Your task to perform on an android device: empty trash in google photos Image 0: 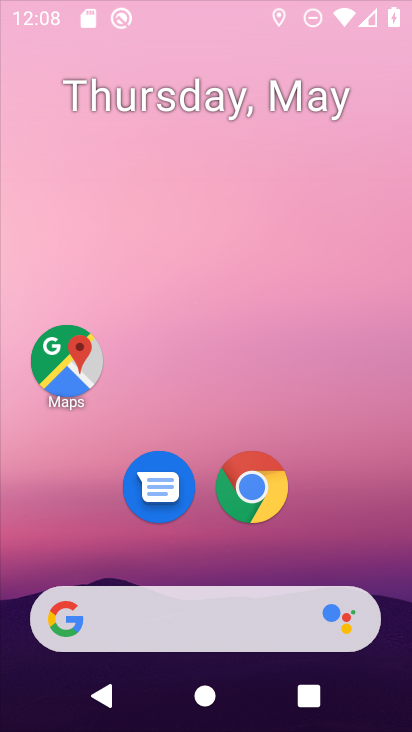
Step 0: click (208, 54)
Your task to perform on an android device: empty trash in google photos Image 1: 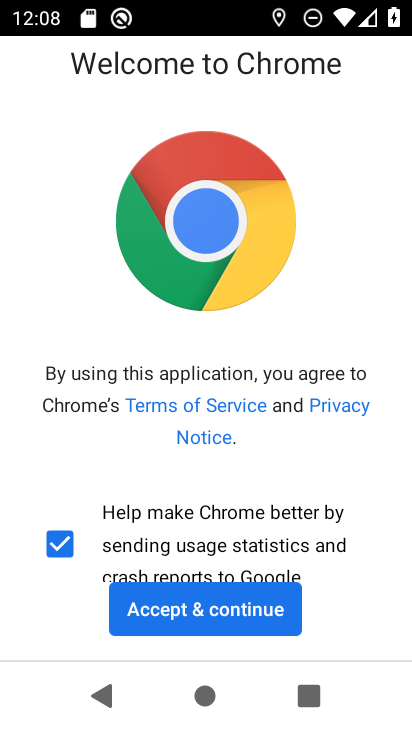
Step 1: press home button
Your task to perform on an android device: empty trash in google photos Image 2: 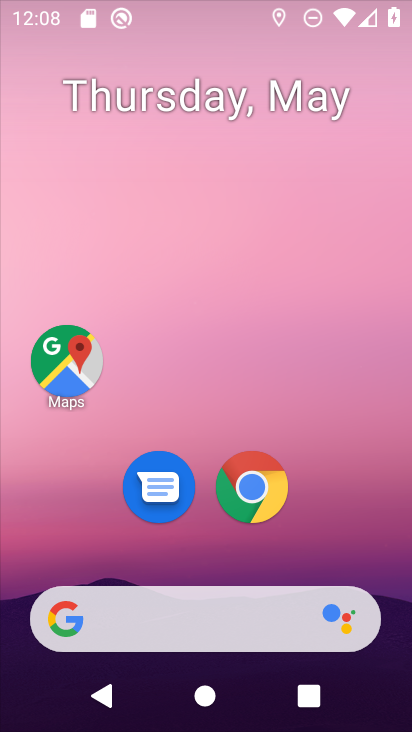
Step 2: drag from (208, 270) to (233, 25)
Your task to perform on an android device: empty trash in google photos Image 3: 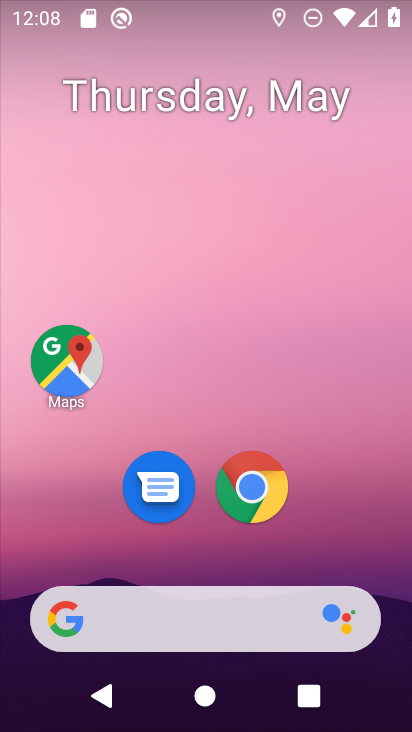
Step 3: drag from (86, 448) to (145, 13)
Your task to perform on an android device: empty trash in google photos Image 4: 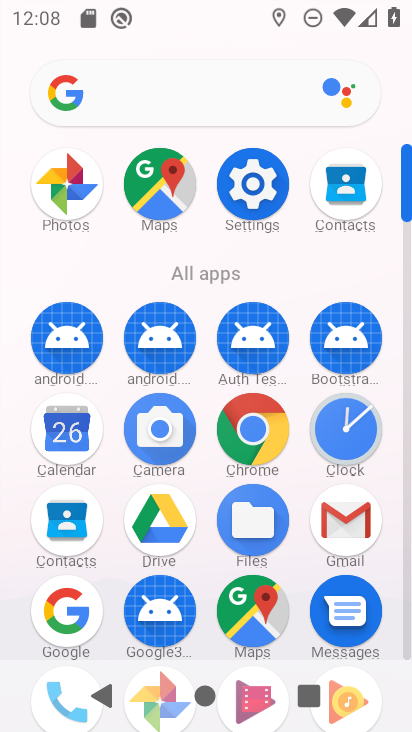
Step 4: click (64, 164)
Your task to perform on an android device: empty trash in google photos Image 5: 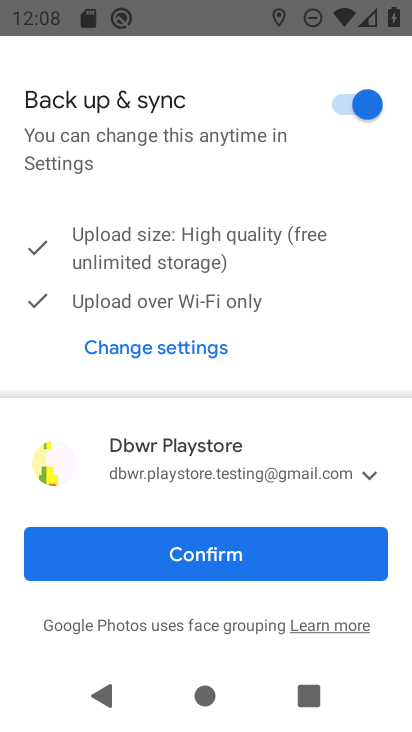
Step 5: click (142, 547)
Your task to perform on an android device: empty trash in google photos Image 6: 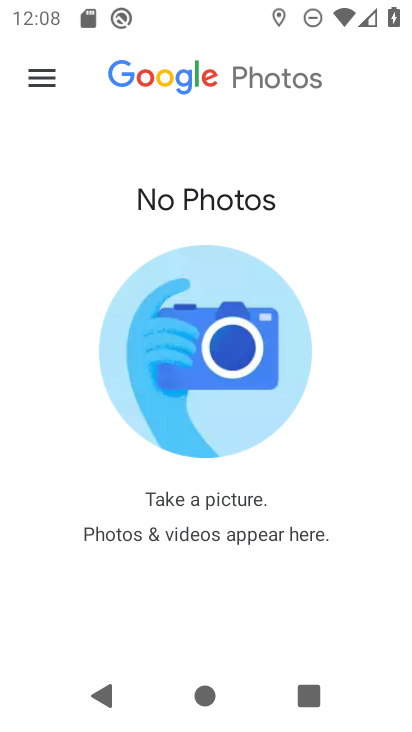
Step 6: click (52, 82)
Your task to perform on an android device: empty trash in google photos Image 7: 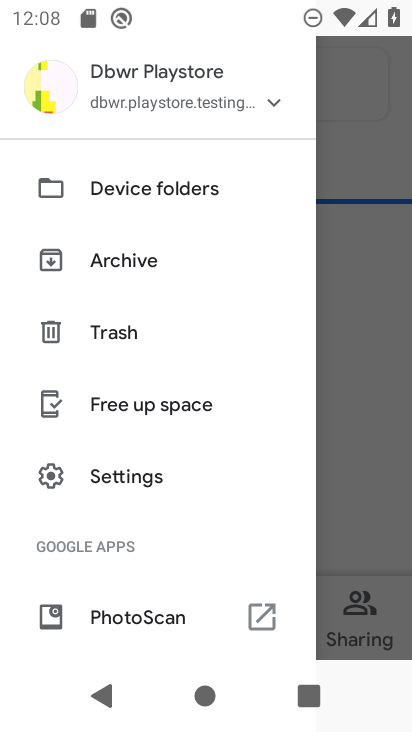
Step 7: click (113, 344)
Your task to perform on an android device: empty trash in google photos Image 8: 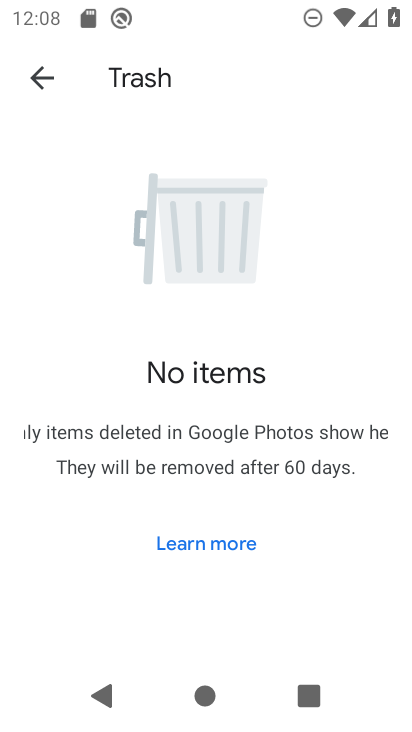
Step 8: task complete